Your task to perform on an android device: Search for sushi restaurants on Maps Image 0: 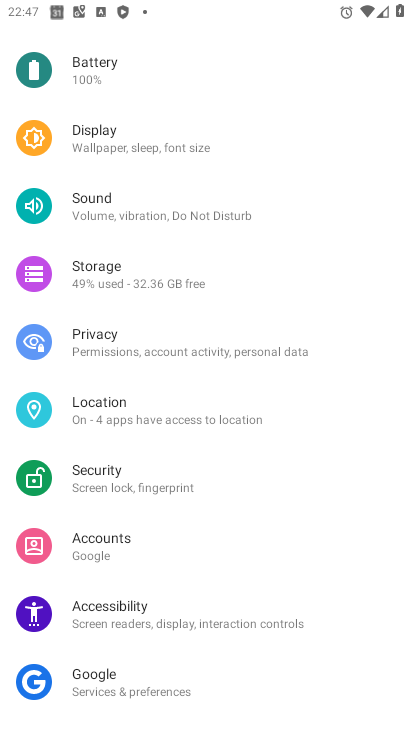
Step 0: press back button
Your task to perform on an android device: Search for sushi restaurants on Maps Image 1: 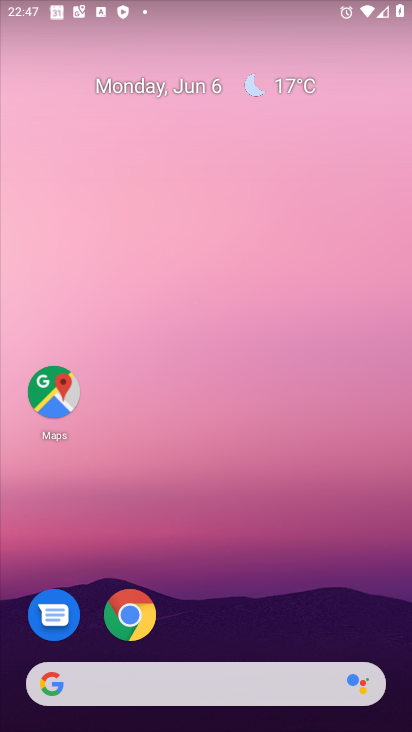
Step 1: click (61, 389)
Your task to perform on an android device: Search for sushi restaurants on Maps Image 2: 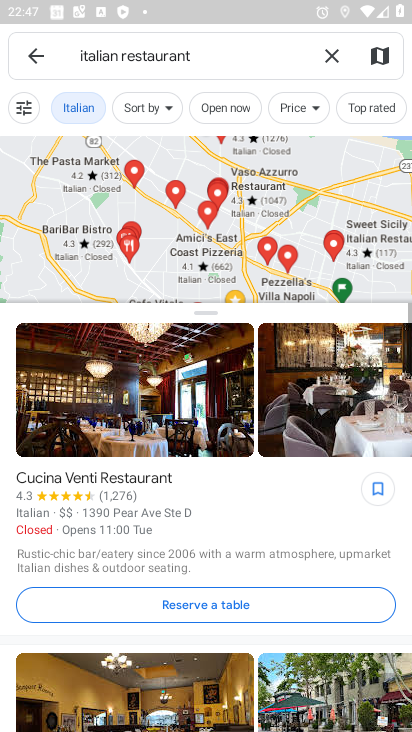
Step 2: click (335, 54)
Your task to perform on an android device: Search for sushi restaurants on Maps Image 3: 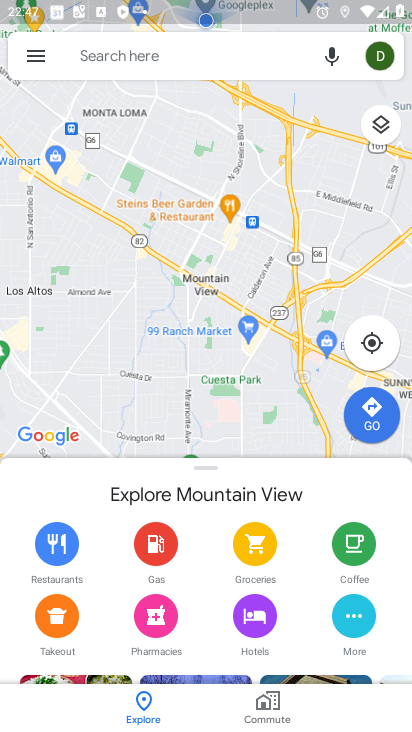
Step 3: click (117, 52)
Your task to perform on an android device: Search for sushi restaurants on Maps Image 4: 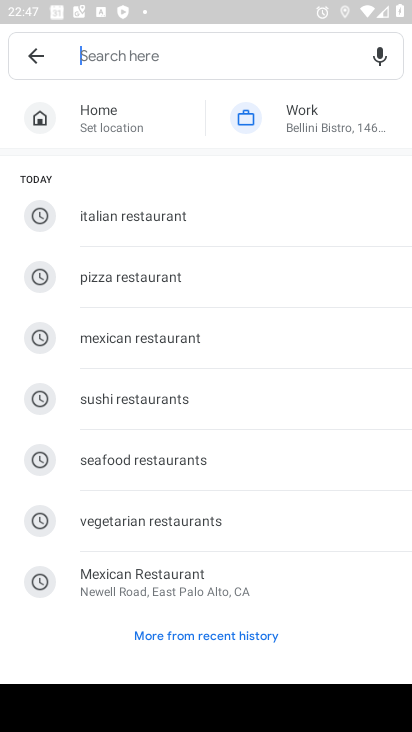
Step 4: type "sushi restaurants"
Your task to perform on an android device: Search for sushi restaurants on Maps Image 5: 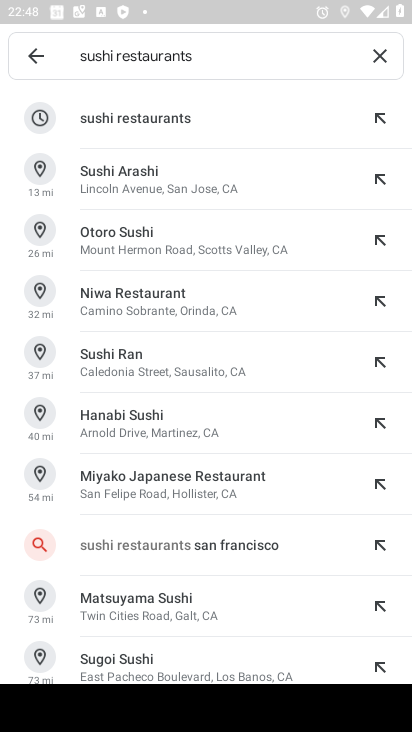
Step 5: click (162, 111)
Your task to perform on an android device: Search for sushi restaurants on Maps Image 6: 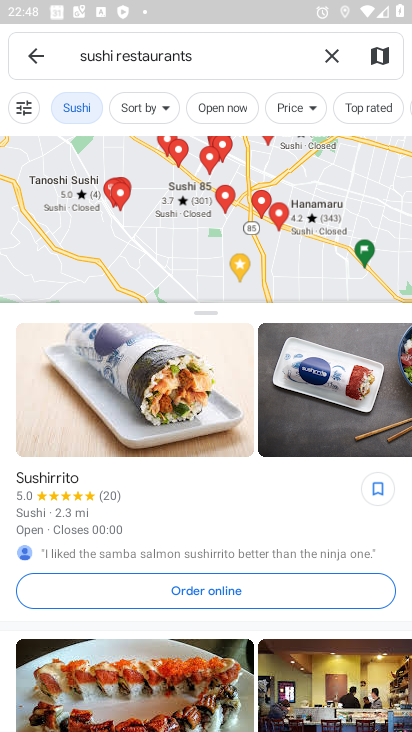
Step 6: task complete